Your task to perform on an android device: Go to settings Image 0: 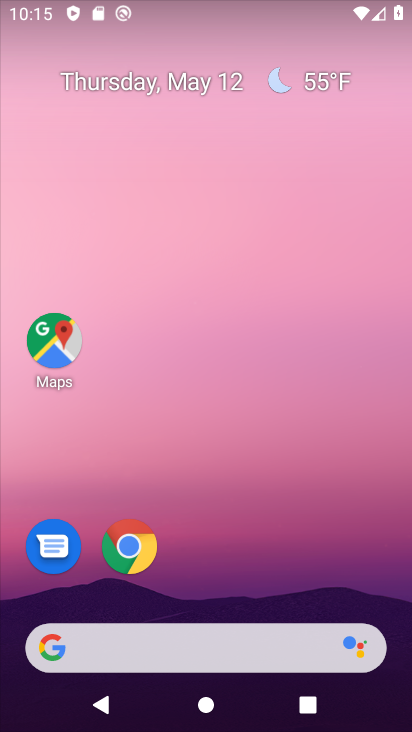
Step 0: drag from (230, 478) to (275, 69)
Your task to perform on an android device: Go to settings Image 1: 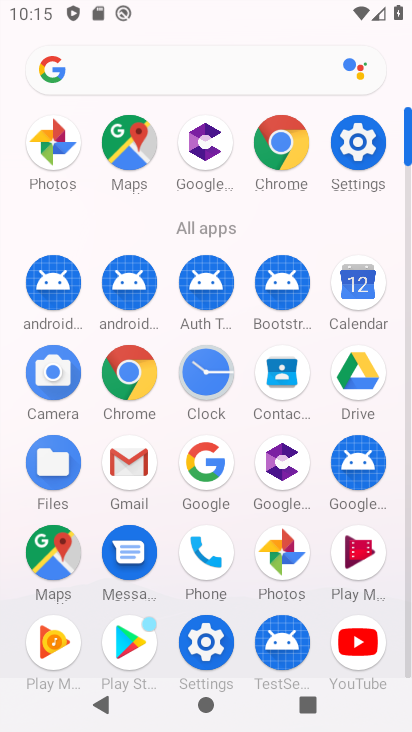
Step 1: click (370, 153)
Your task to perform on an android device: Go to settings Image 2: 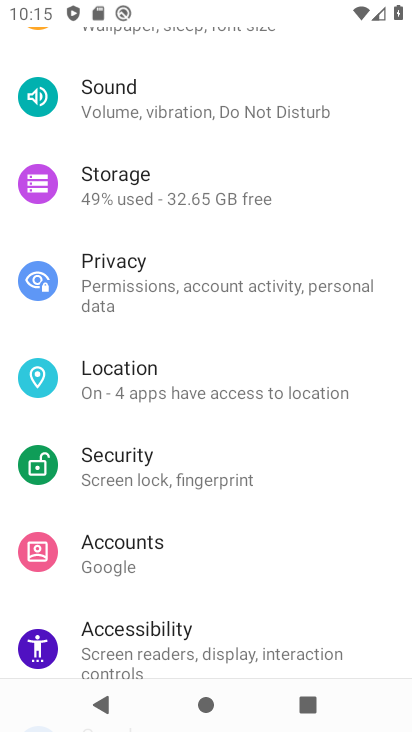
Step 2: task complete